Your task to perform on an android device: What's the weather today? Image 0: 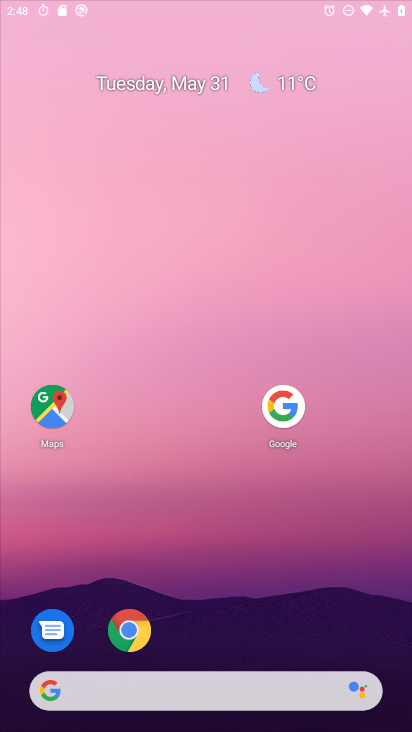
Step 0: press home button
Your task to perform on an android device: What's the weather today? Image 1: 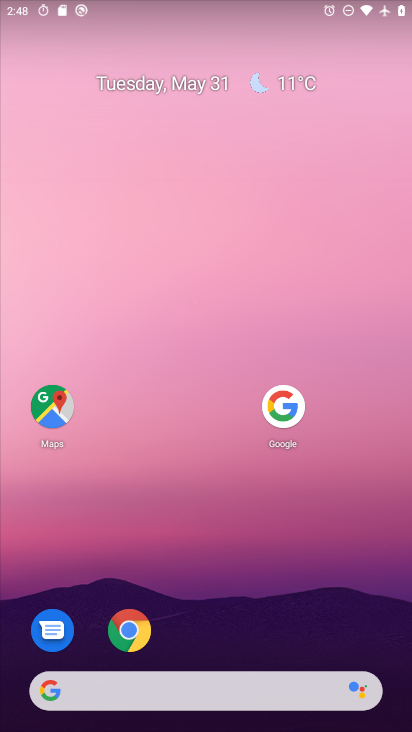
Step 1: click (294, 81)
Your task to perform on an android device: What's the weather today? Image 2: 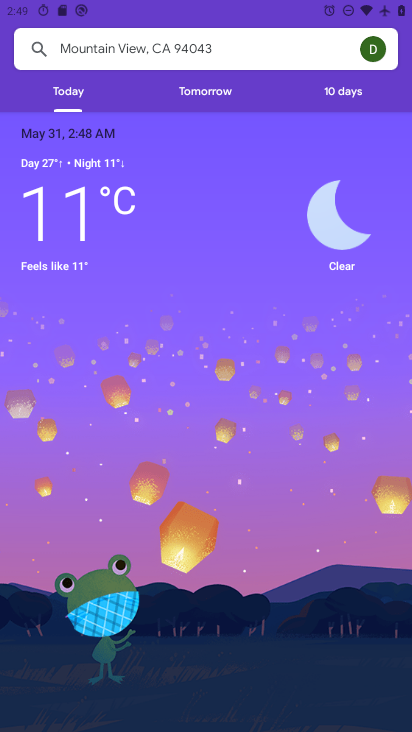
Step 2: task complete